Your task to perform on an android device: Open Google Image 0: 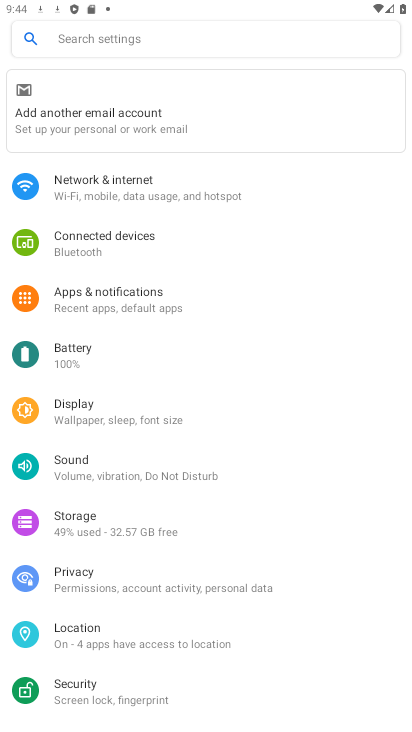
Step 0: press home button
Your task to perform on an android device: Open Google Image 1: 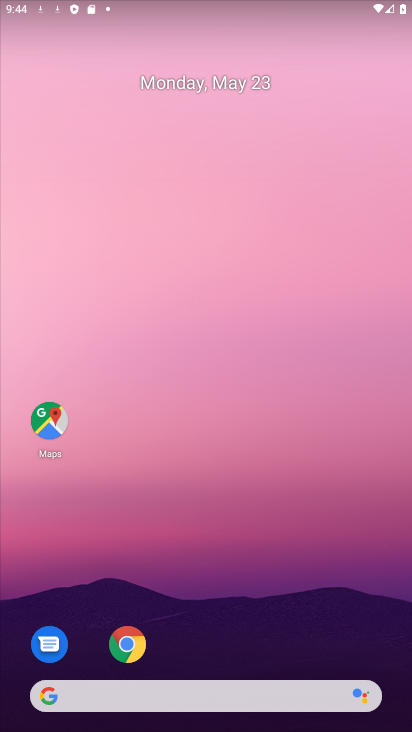
Step 1: drag from (248, 710) to (194, 248)
Your task to perform on an android device: Open Google Image 2: 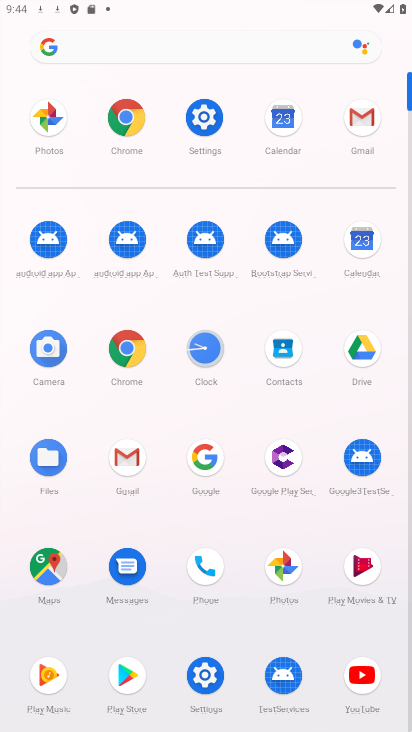
Step 2: click (59, 45)
Your task to perform on an android device: Open Google Image 3: 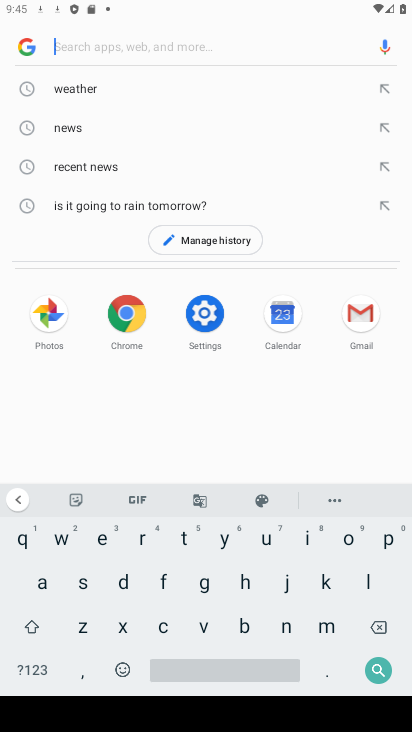
Step 3: click (22, 51)
Your task to perform on an android device: Open Google Image 4: 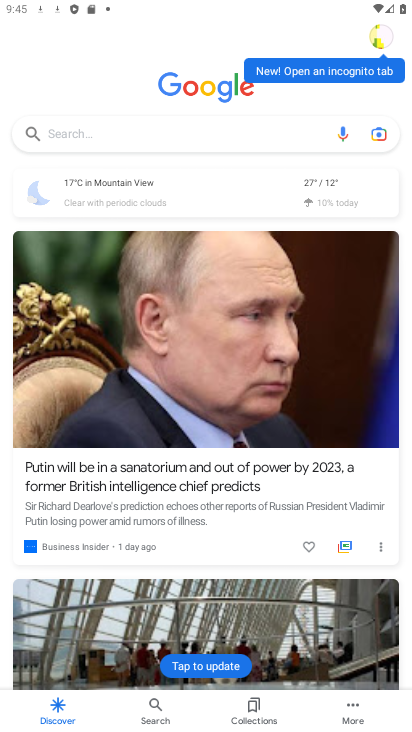
Step 4: task complete